Your task to perform on an android device: Go to settings Image 0: 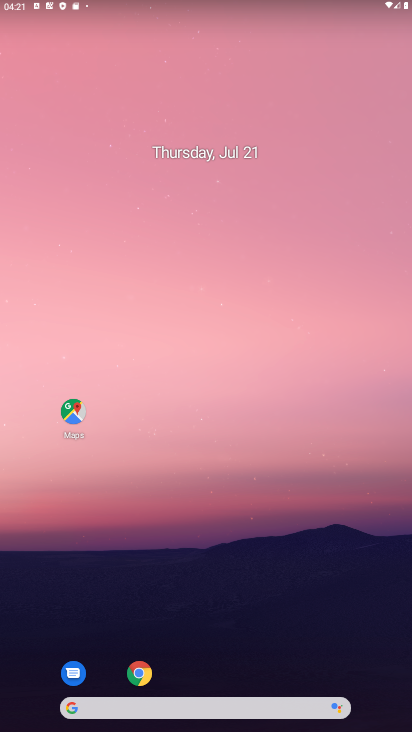
Step 0: drag from (383, 682) to (338, 96)
Your task to perform on an android device: Go to settings Image 1: 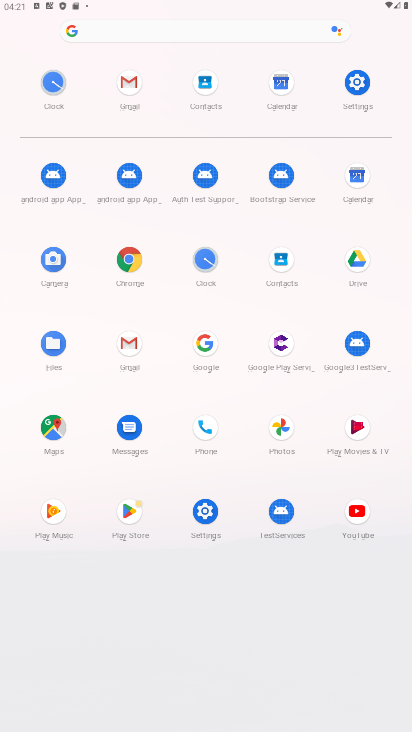
Step 1: click (205, 512)
Your task to perform on an android device: Go to settings Image 2: 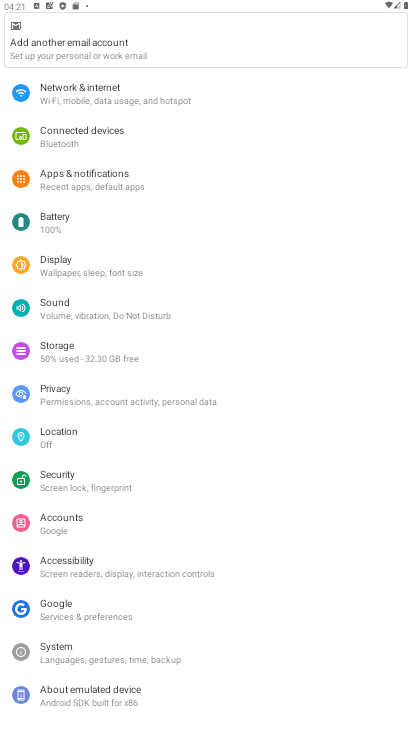
Step 2: task complete